Your task to perform on an android device: What's the weather going to be tomorrow? Image 0: 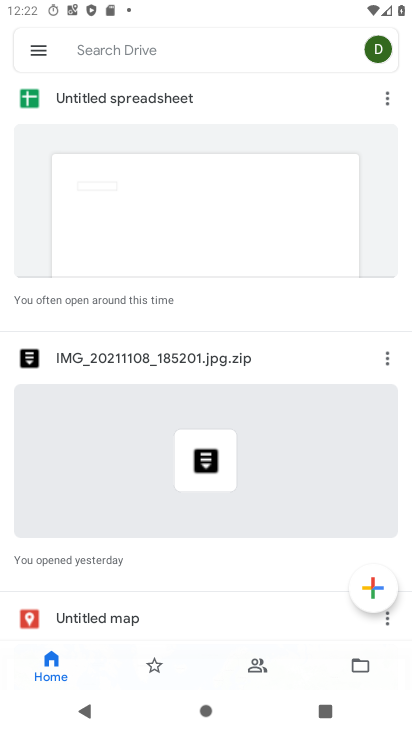
Step 0: press home button
Your task to perform on an android device: What's the weather going to be tomorrow? Image 1: 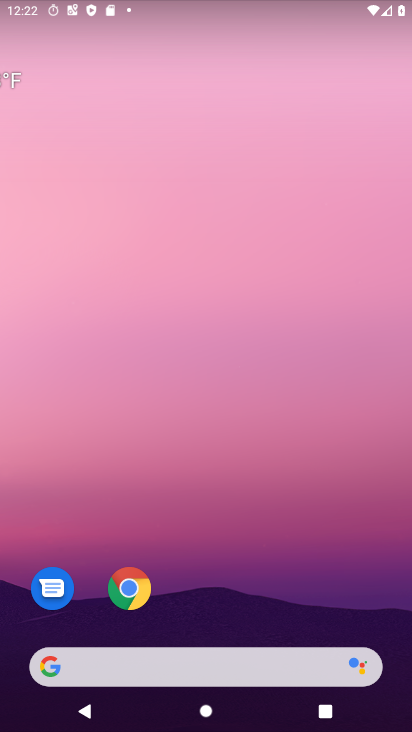
Step 1: drag from (246, 577) to (246, 289)
Your task to perform on an android device: What's the weather going to be tomorrow? Image 2: 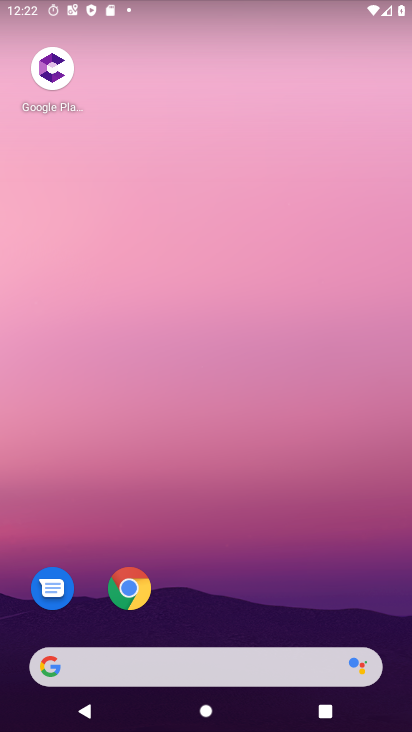
Step 2: drag from (242, 555) to (289, 150)
Your task to perform on an android device: What's the weather going to be tomorrow? Image 3: 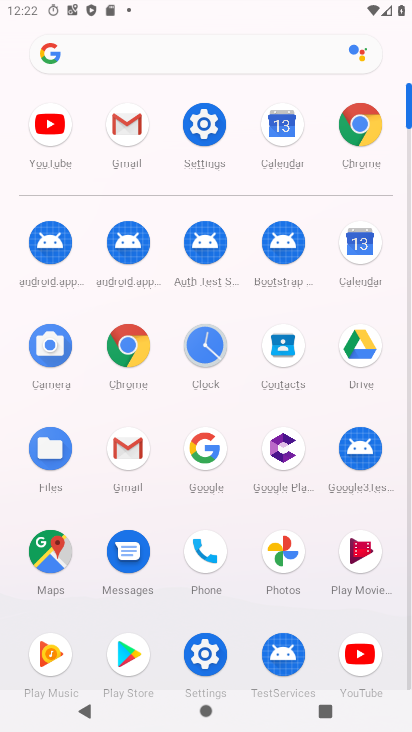
Step 3: press home button
Your task to perform on an android device: What's the weather going to be tomorrow? Image 4: 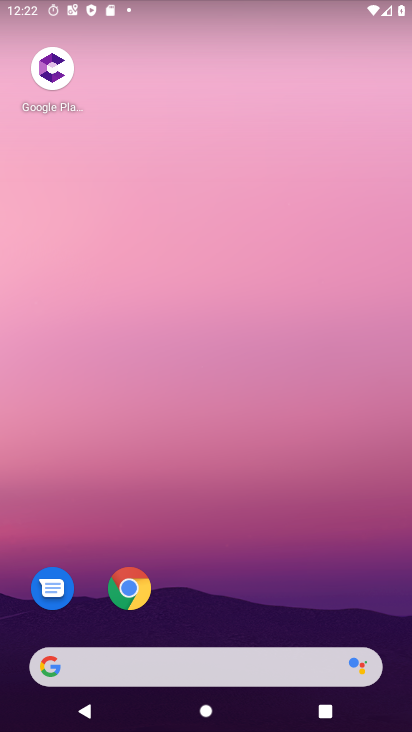
Step 4: drag from (280, 477) to (276, 11)
Your task to perform on an android device: What's the weather going to be tomorrow? Image 5: 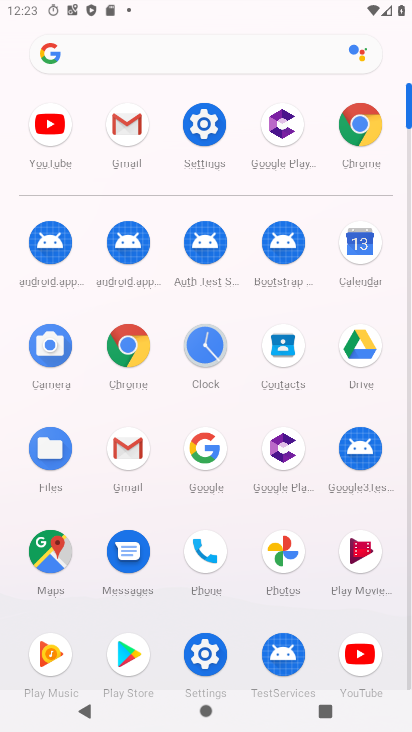
Step 5: click (137, 342)
Your task to perform on an android device: What's the weather going to be tomorrow? Image 6: 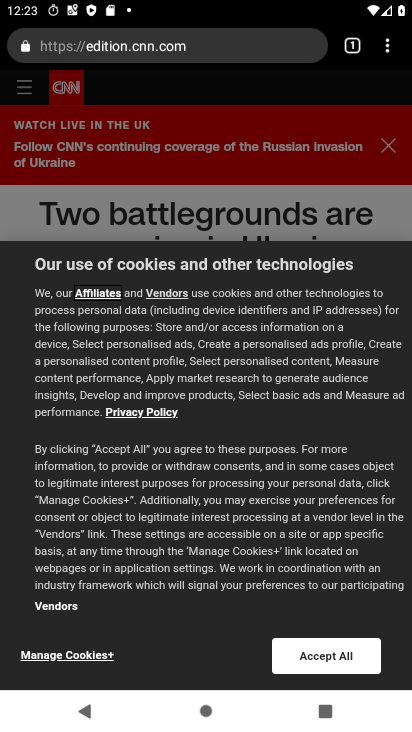
Step 6: click (225, 35)
Your task to perform on an android device: What's the weather going to be tomorrow? Image 7: 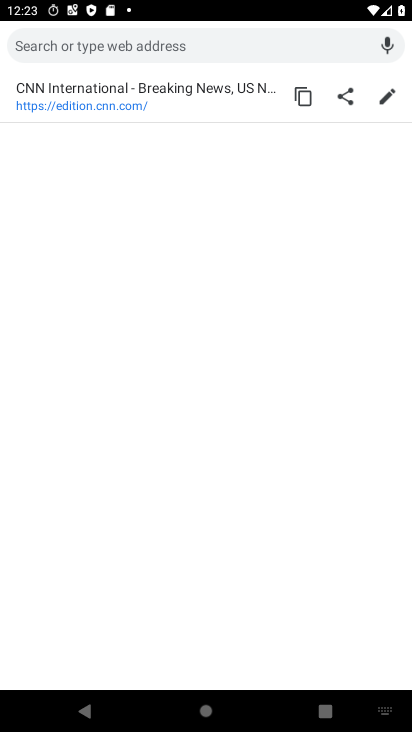
Step 7: type "weather"
Your task to perform on an android device: What's the weather going to be tomorrow? Image 8: 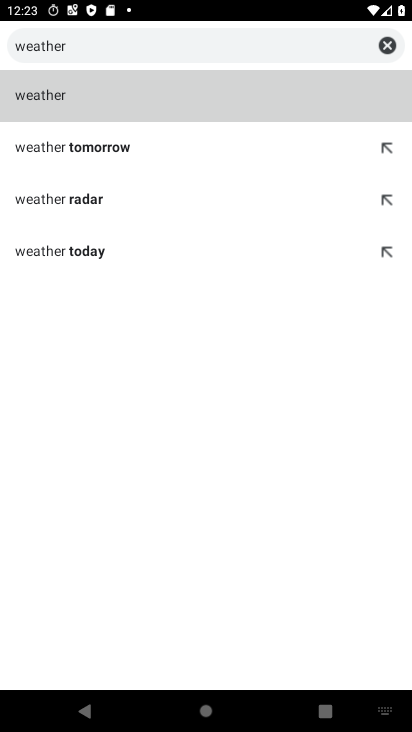
Step 8: click (40, 87)
Your task to perform on an android device: What's the weather going to be tomorrow? Image 9: 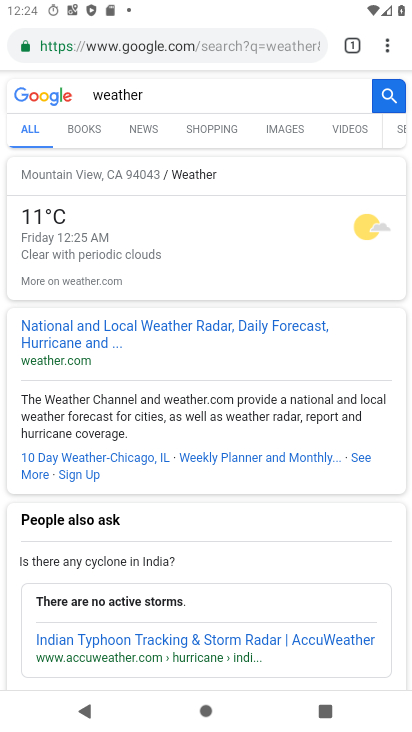
Step 9: click (86, 282)
Your task to perform on an android device: What's the weather going to be tomorrow? Image 10: 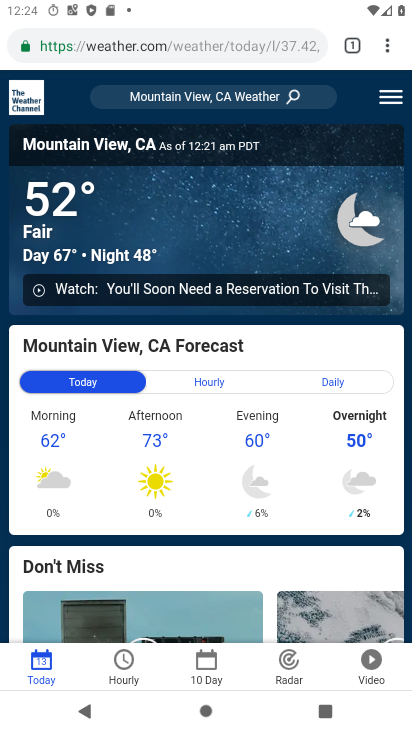
Step 10: drag from (126, 504) to (159, 215)
Your task to perform on an android device: What's the weather going to be tomorrow? Image 11: 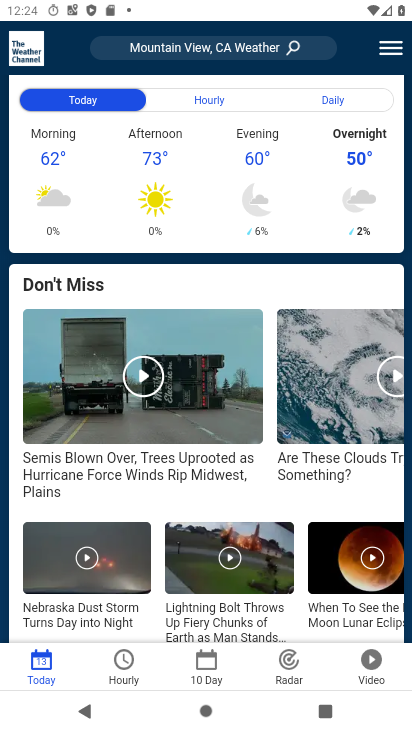
Step 11: drag from (195, 231) to (196, 438)
Your task to perform on an android device: What's the weather going to be tomorrow? Image 12: 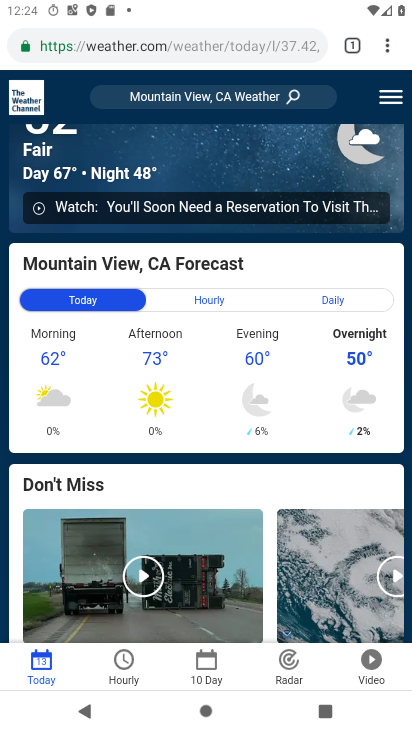
Step 12: click (378, 91)
Your task to perform on an android device: What's the weather going to be tomorrow? Image 13: 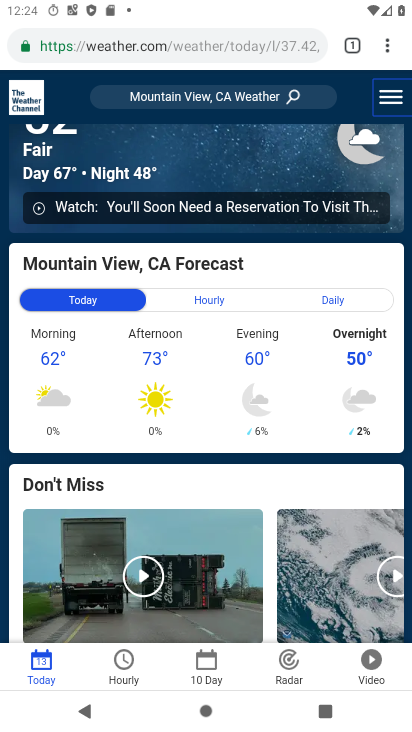
Step 13: click (381, 93)
Your task to perform on an android device: What's the weather going to be tomorrow? Image 14: 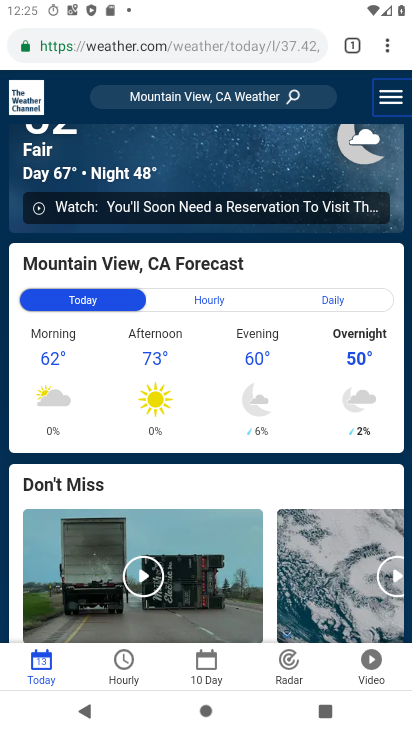
Step 14: click (396, 90)
Your task to perform on an android device: What's the weather going to be tomorrow? Image 15: 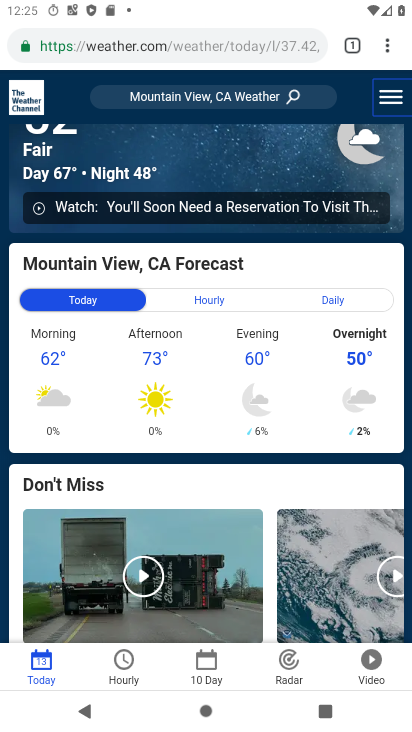
Step 15: drag from (146, 525) to (239, 89)
Your task to perform on an android device: What's the weather going to be tomorrow? Image 16: 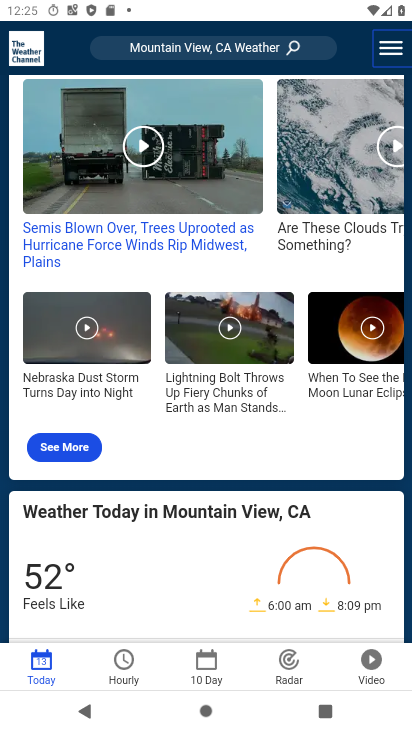
Step 16: drag from (177, 463) to (204, 127)
Your task to perform on an android device: What's the weather going to be tomorrow? Image 17: 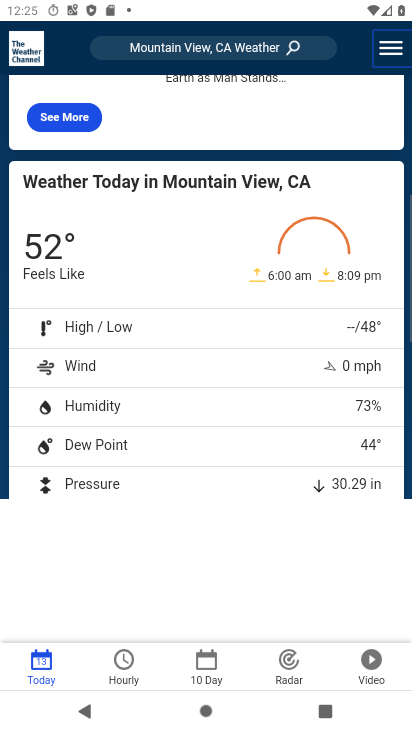
Step 17: drag from (148, 552) to (181, 181)
Your task to perform on an android device: What's the weather going to be tomorrow? Image 18: 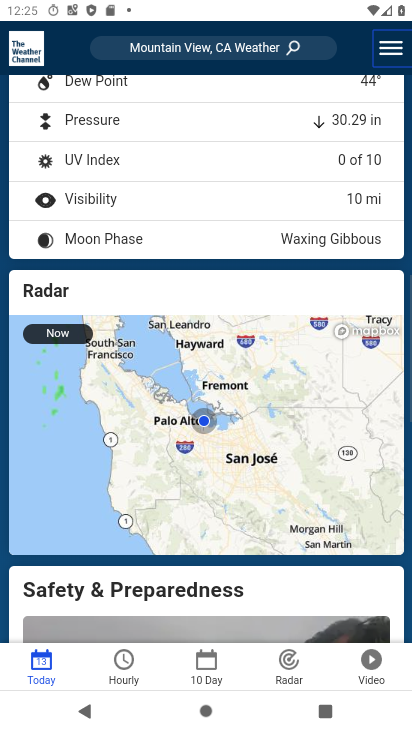
Step 18: drag from (121, 436) to (165, 128)
Your task to perform on an android device: What's the weather going to be tomorrow? Image 19: 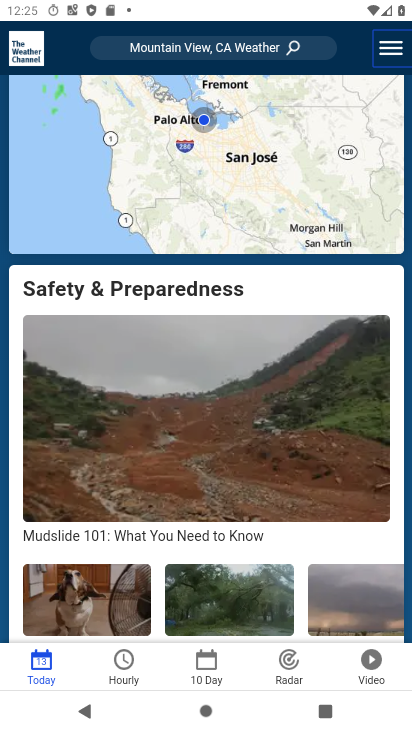
Step 19: drag from (150, 519) to (171, 199)
Your task to perform on an android device: What's the weather going to be tomorrow? Image 20: 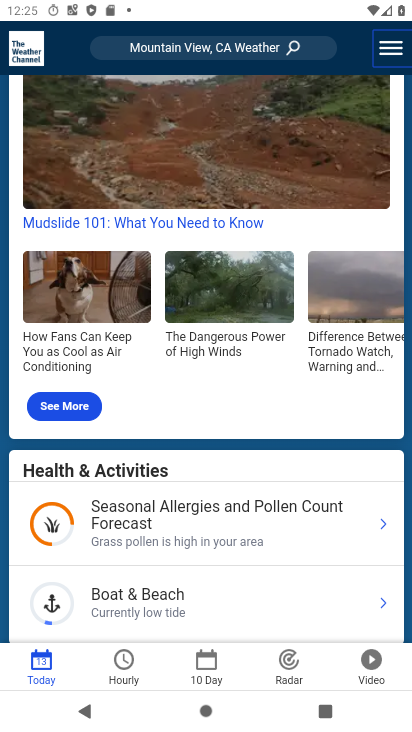
Step 20: click (223, 660)
Your task to perform on an android device: What's the weather going to be tomorrow? Image 21: 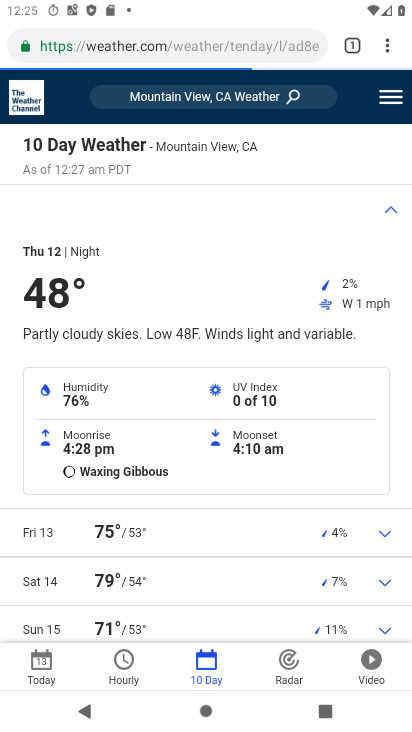
Step 21: click (204, 673)
Your task to perform on an android device: What's the weather going to be tomorrow? Image 22: 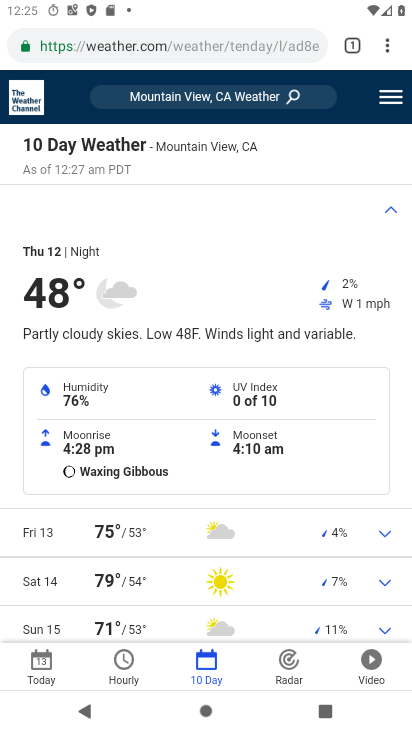
Step 22: drag from (310, 579) to (313, 358)
Your task to perform on an android device: What's the weather going to be tomorrow? Image 23: 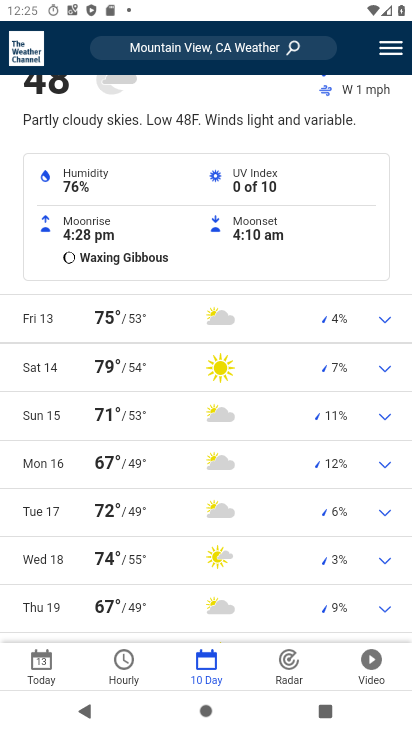
Step 23: click (42, 326)
Your task to perform on an android device: What's the weather going to be tomorrow? Image 24: 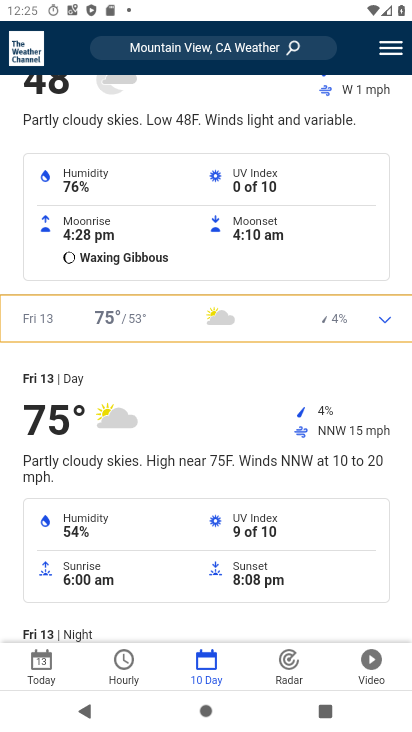
Step 24: drag from (219, 222) to (242, 175)
Your task to perform on an android device: What's the weather going to be tomorrow? Image 25: 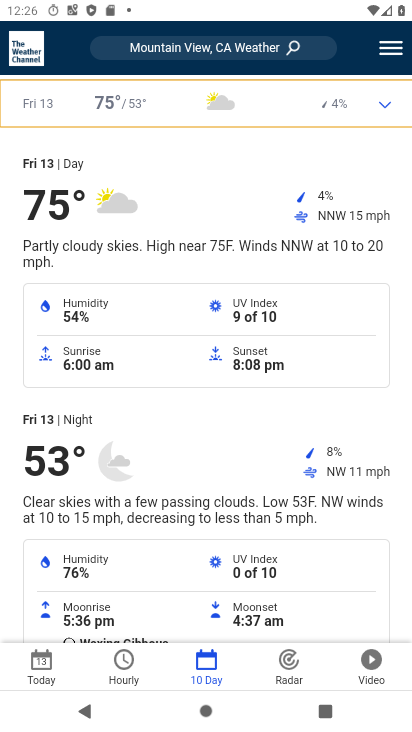
Step 25: drag from (203, 475) to (244, 133)
Your task to perform on an android device: What's the weather going to be tomorrow? Image 26: 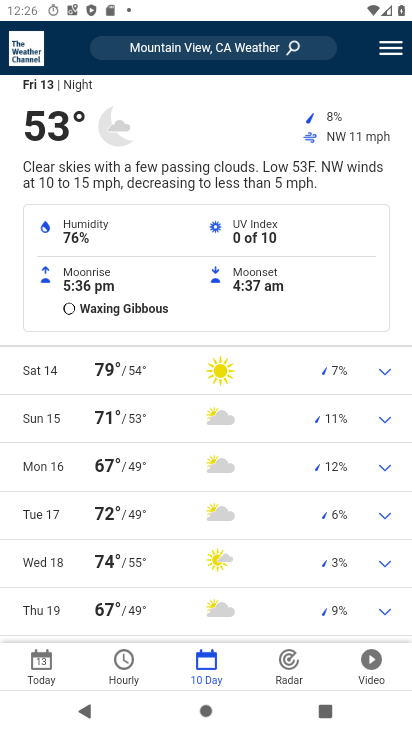
Step 26: click (64, 373)
Your task to perform on an android device: What's the weather going to be tomorrow? Image 27: 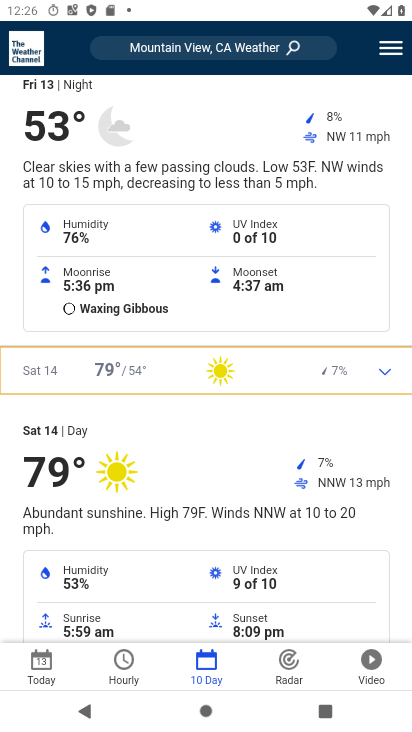
Step 27: task complete